Your task to perform on an android device: open a bookmark in the chrome app Image 0: 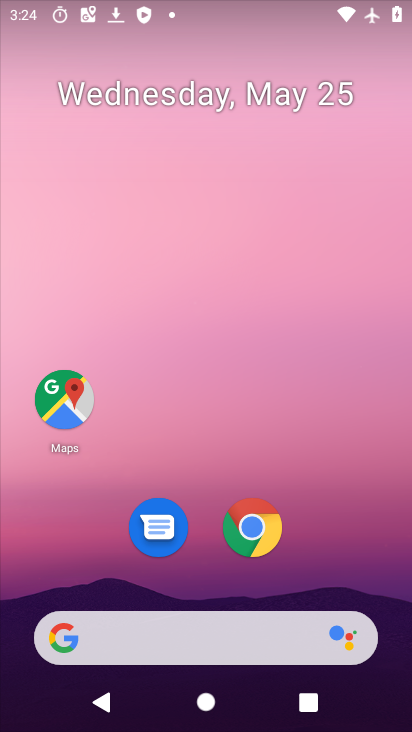
Step 0: drag from (203, 593) to (228, 146)
Your task to perform on an android device: open a bookmark in the chrome app Image 1: 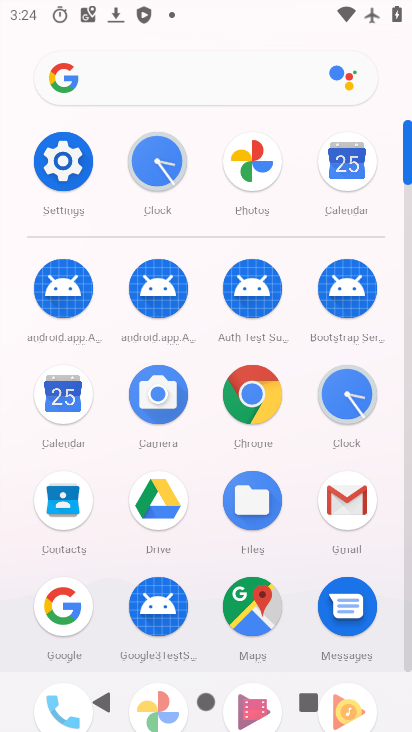
Step 1: click (247, 386)
Your task to perform on an android device: open a bookmark in the chrome app Image 2: 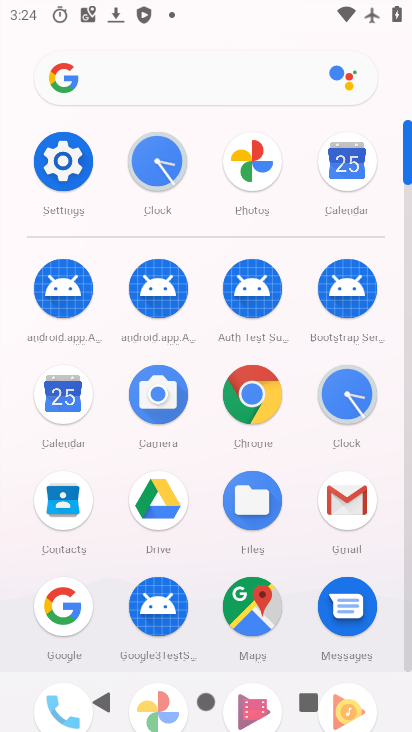
Step 2: click (247, 386)
Your task to perform on an android device: open a bookmark in the chrome app Image 3: 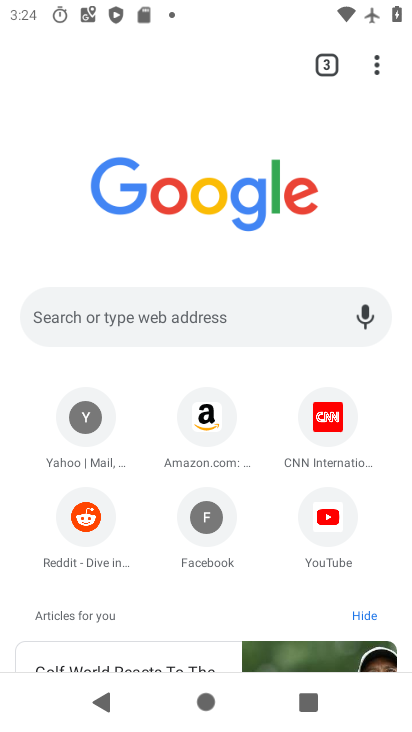
Step 3: task complete